Your task to perform on an android device: toggle airplane mode Image 0: 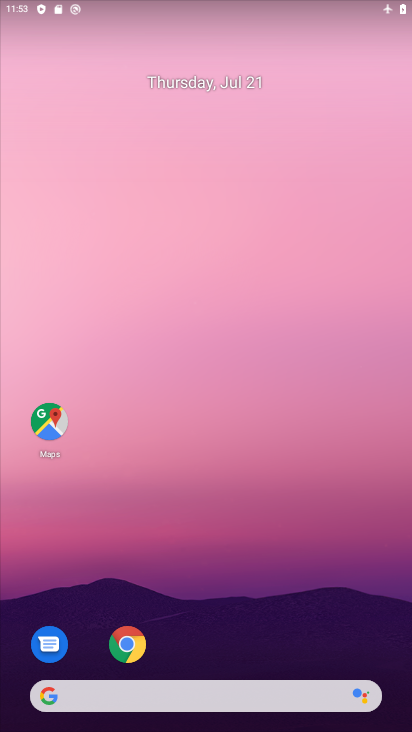
Step 0: drag from (195, 668) to (242, 84)
Your task to perform on an android device: toggle airplane mode Image 1: 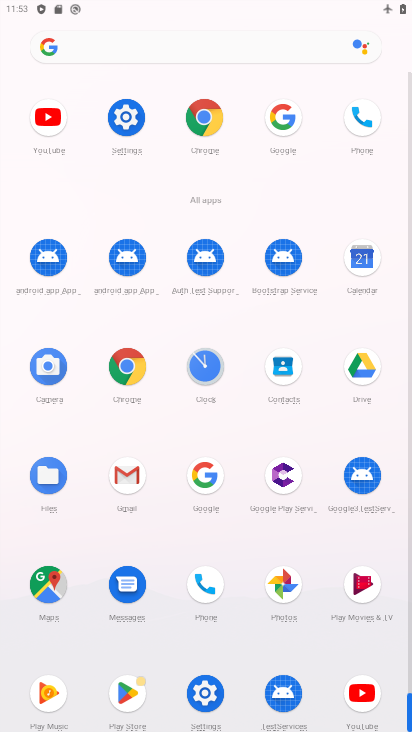
Step 1: click (130, 147)
Your task to perform on an android device: toggle airplane mode Image 2: 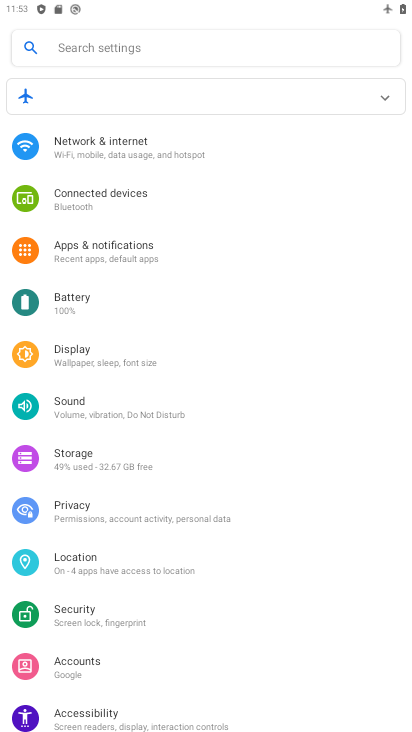
Step 2: click (123, 151)
Your task to perform on an android device: toggle airplane mode Image 3: 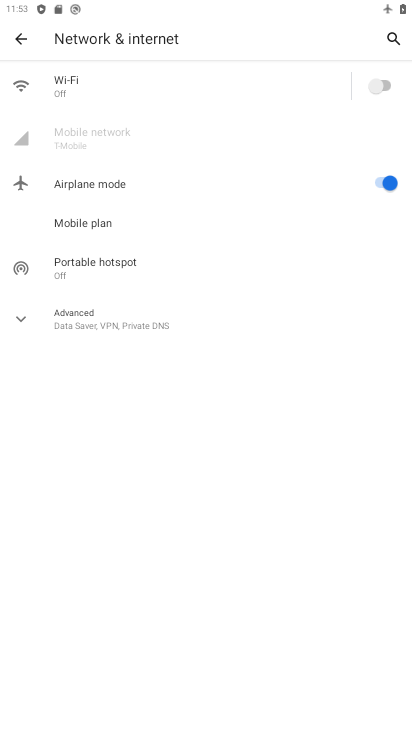
Step 3: click (359, 180)
Your task to perform on an android device: toggle airplane mode Image 4: 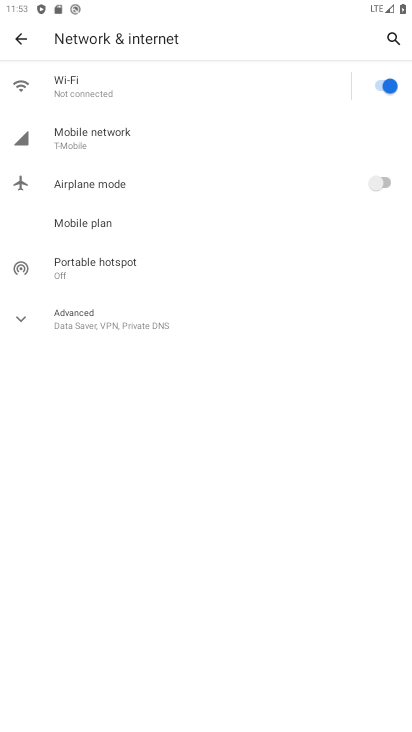
Step 4: task complete